Your task to perform on an android device: add a contact Image 0: 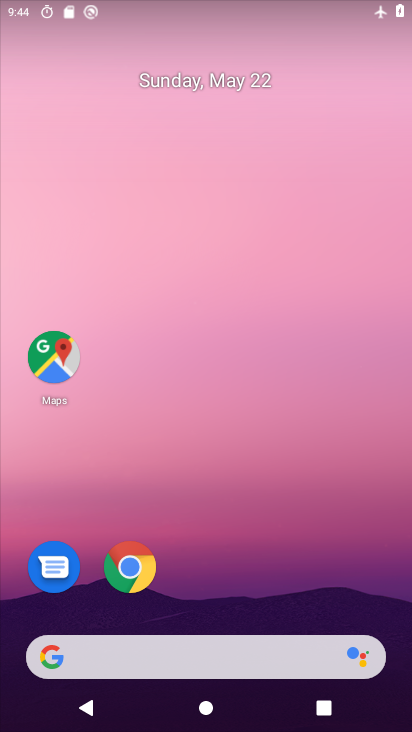
Step 0: press home button
Your task to perform on an android device: add a contact Image 1: 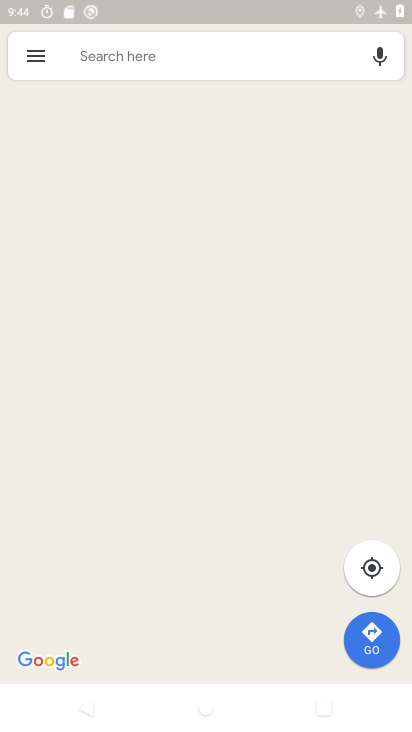
Step 1: drag from (232, 602) to (208, 149)
Your task to perform on an android device: add a contact Image 2: 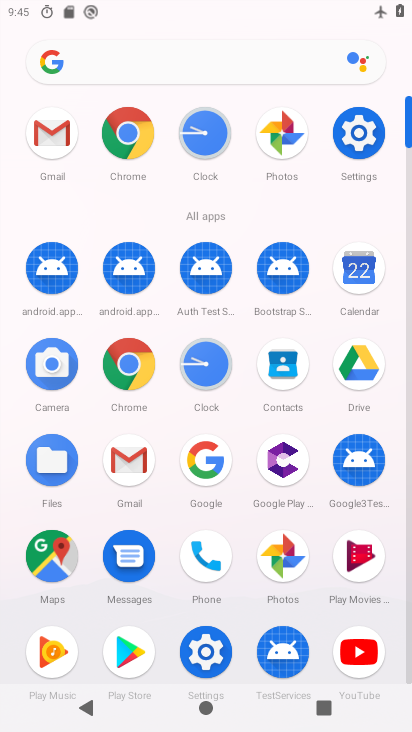
Step 2: click (280, 357)
Your task to perform on an android device: add a contact Image 3: 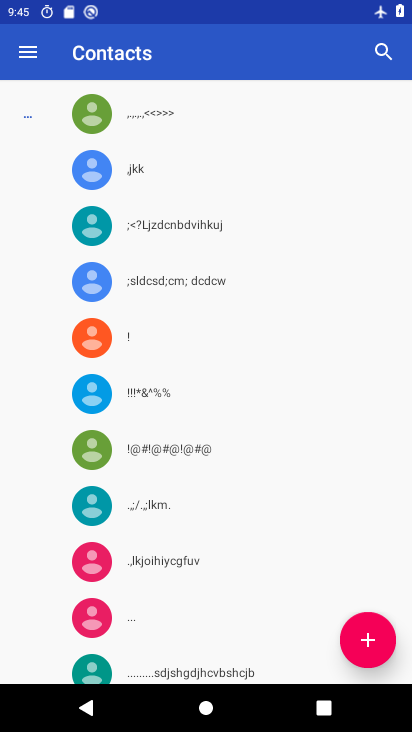
Step 3: click (370, 638)
Your task to perform on an android device: add a contact Image 4: 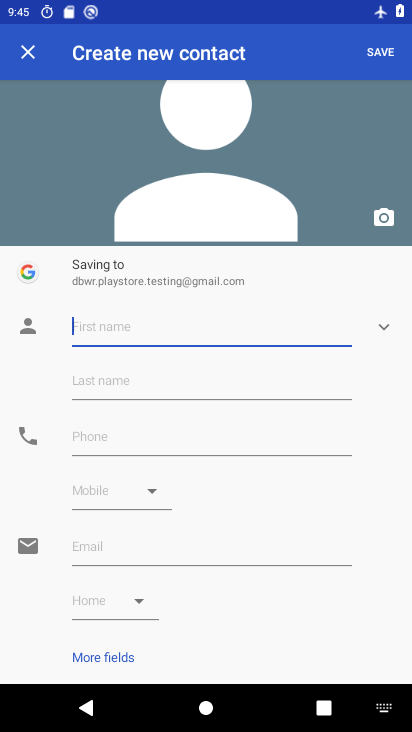
Step 4: type "mbvgfxr"
Your task to perform on an android device: add a contact Image 5: 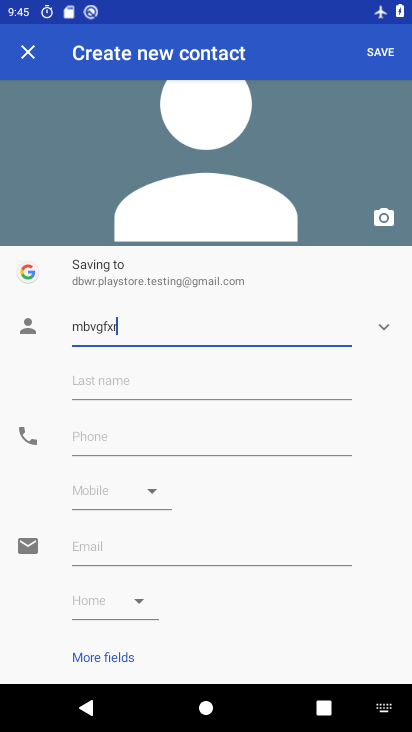
Step 5: click (377, 55)
Your task to perform on an android device: add a contact Image 6: 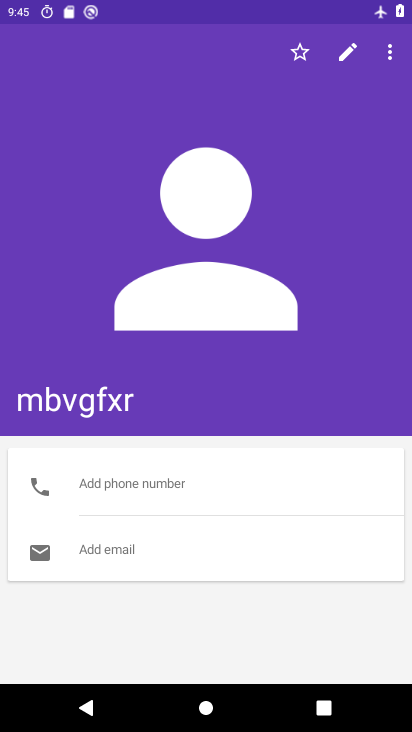
Step 6: task complete